Your task to perform on an android device: toggle priority inbox in the gmail app Image 0: 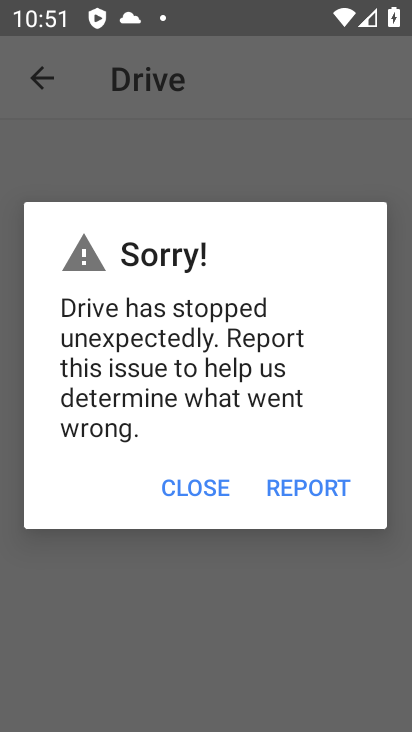
Step 0: press home button
Your task to perform on an android device: toggle priority inbox in the gmail app Image 1: 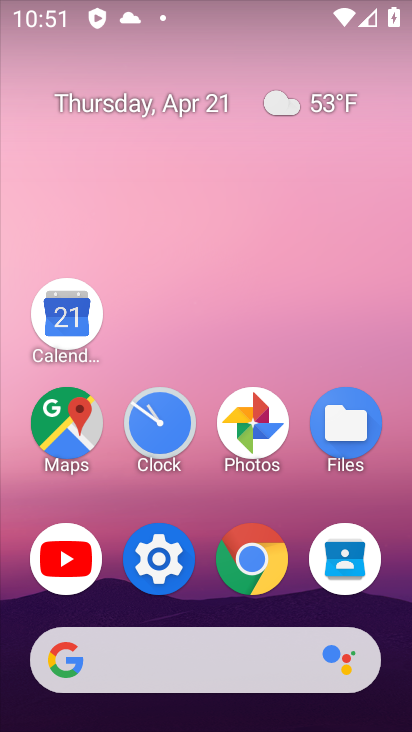
Step 1: drag from (206, 715) to (244, 58)
Your task to perform on an android device: toggle priority inbox in the gmail app Image 2: 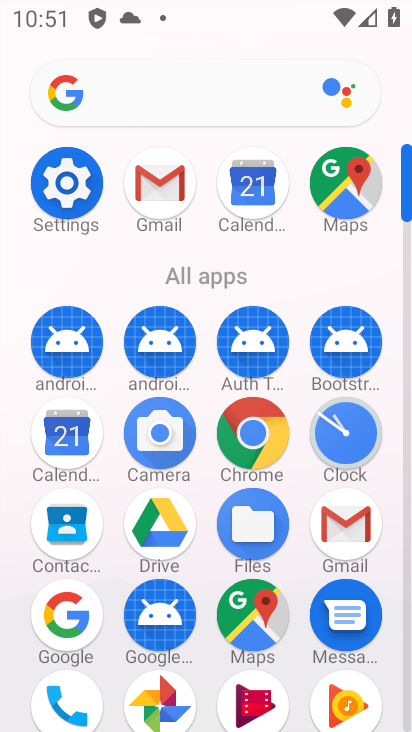
Step 2: click (343, 526)
Your task to perform on an android device: toggle priority inbox in the gmail app Image 3: 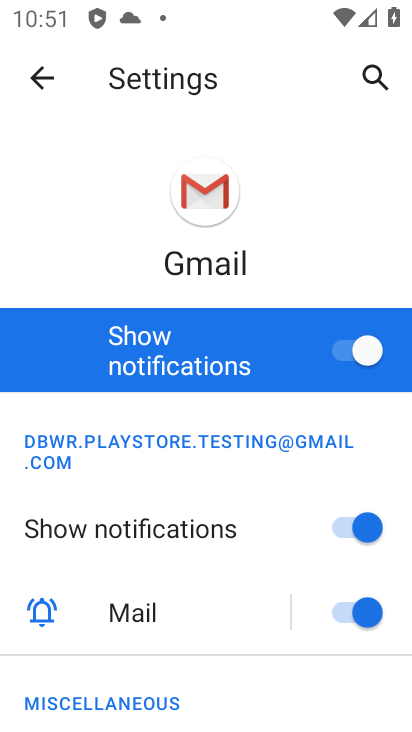
Step 3: click (39, 83)
Your task to perform on an android device: toggle priority inbox in the gmail app Image 4: 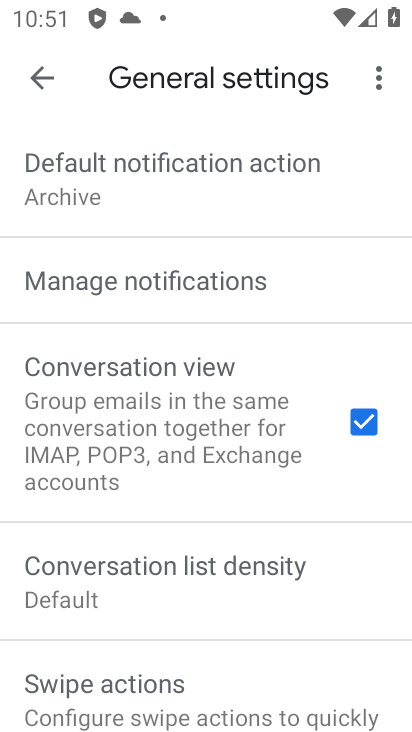
Step 4: click (39, 77)
Your task to perform on an android device: toggle priority inbox in the gmail app Image 5: 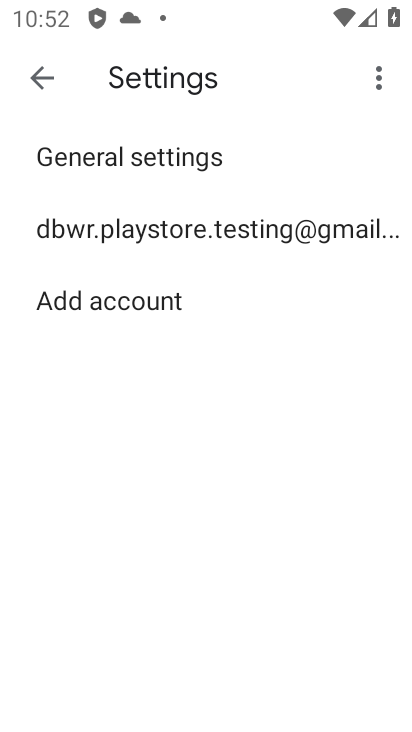
Step 5: click (159, 152)
Your task to perform on an android device: toggle priority inbox in the gmail app Image 6: 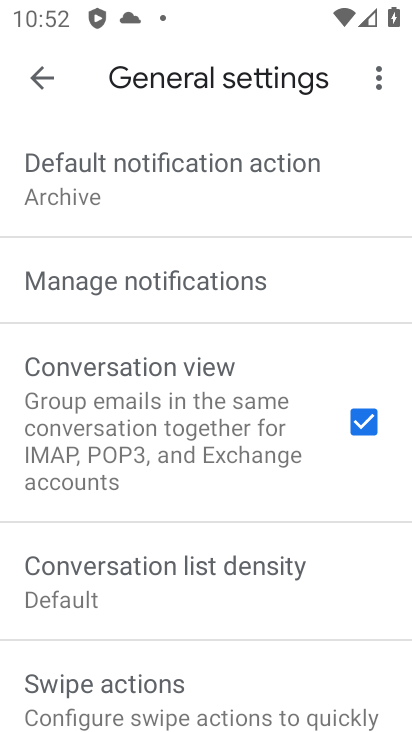
Step 6: click (36, 79)
Your task to perform on an android device: toggle priority inbox in the gmail app Image 7: 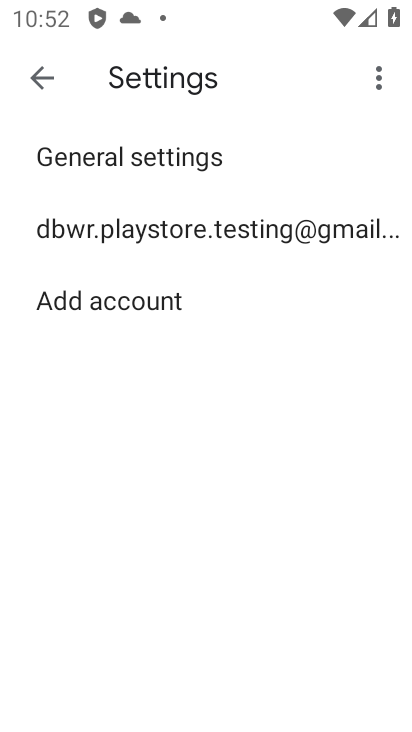
Step 7: click (178, 219)
Your task to perform on an android device: toggle priority inbox in the gmail app Image 8: 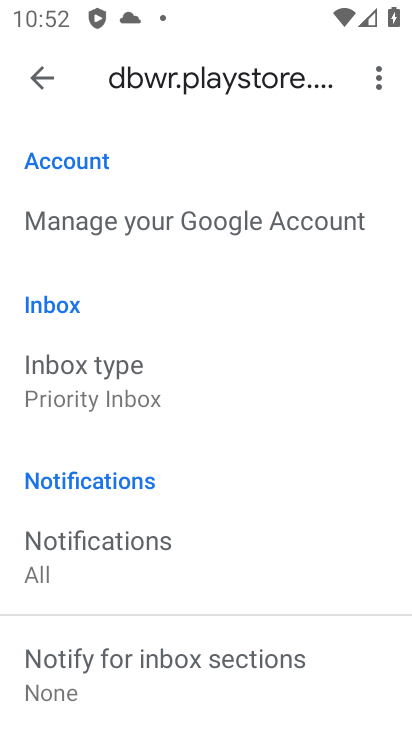
Step 8: click (95, 384)
Your task to perform on an android device: toggle priority inbox in the gmail app Image 9: 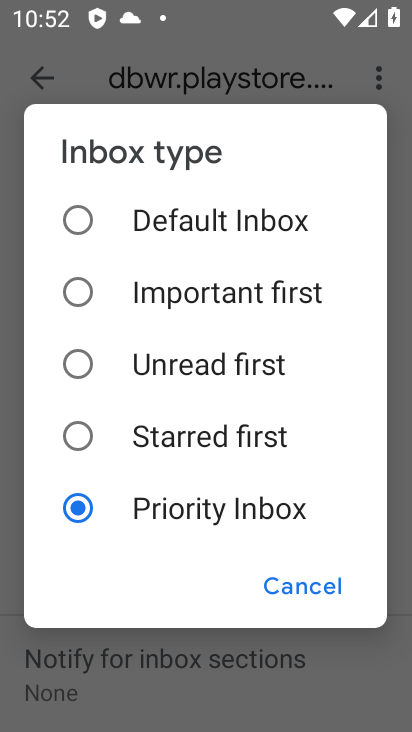
Step 9: click (79, 226)
Your task to perform on an android device: toggle priority inbox in the gmail app Image 10: 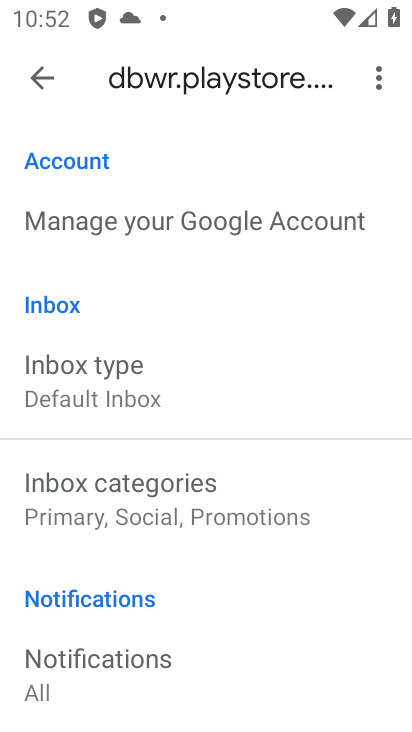
Step 10: task complete